Your task to perform on an android device: change keyboard looks Image 0: 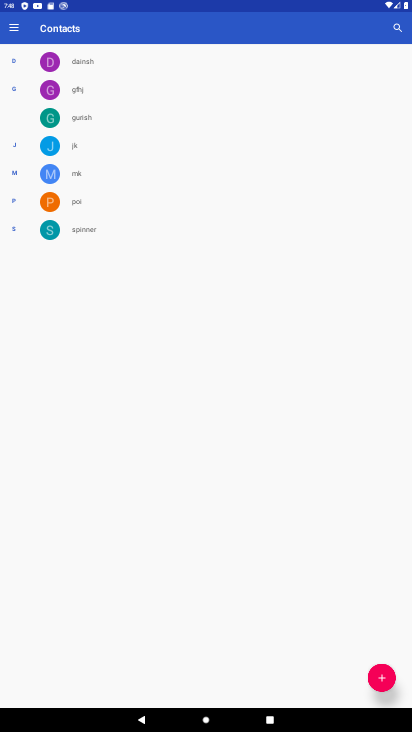
Step 0: press home button
Your task to perform on an android device: change keyboard looks Image 1: 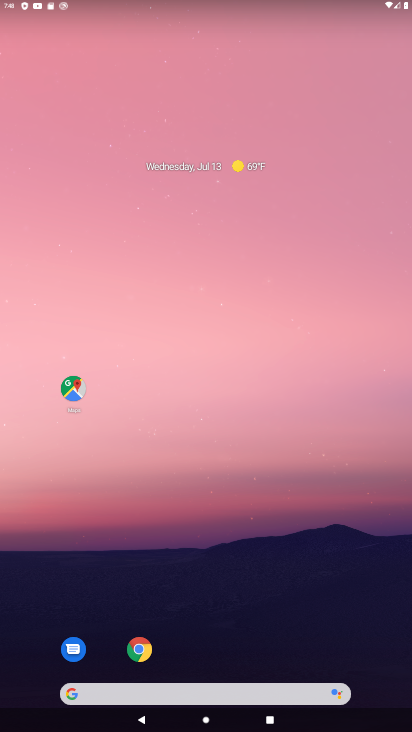
Step 1: drag from (204, 694) to (277, 190)
Your task to perform on an android device: change keyboard looks Image 2: 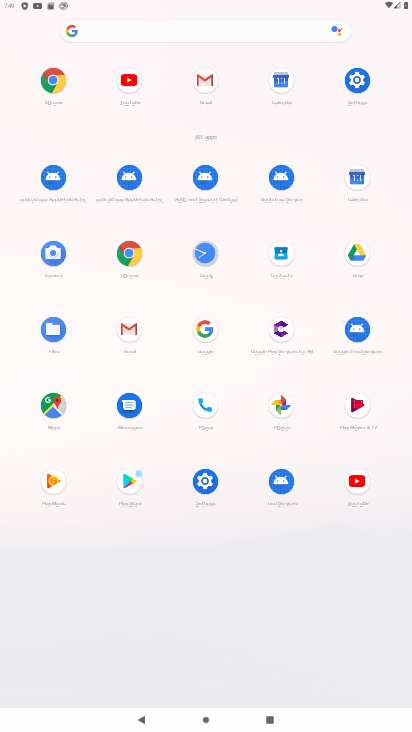
Step 2: click (358, 81)
Your task to perform on an android device: change keyboard looks Image 3: 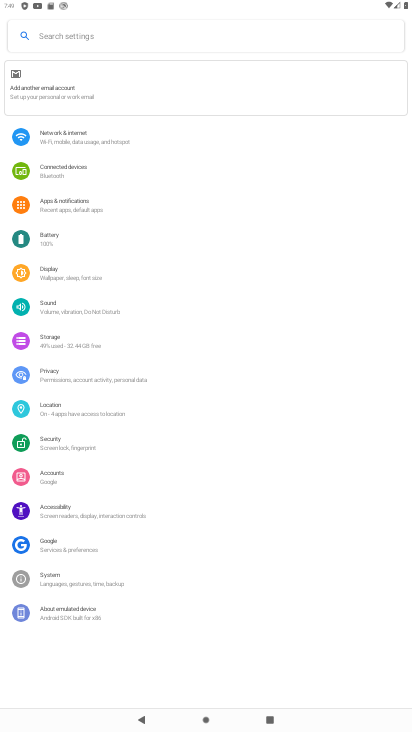
Step 3: click (68, 577)
Your task to perform on an android device: change keyboard looks Image 4: 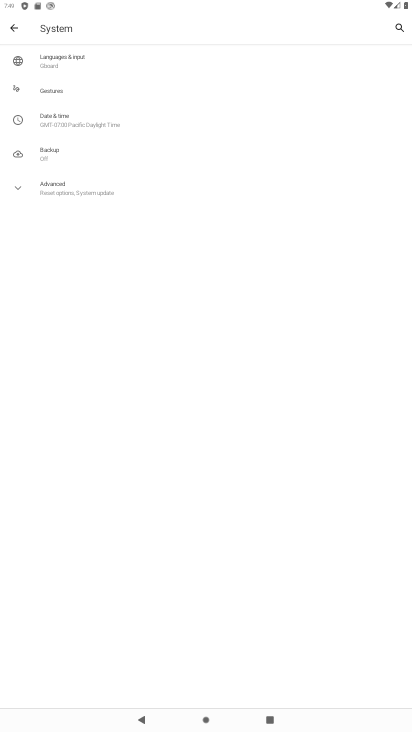
Step 4: click (65, 63)
Your task to perform on an android device: change keyboard looks Image 5: 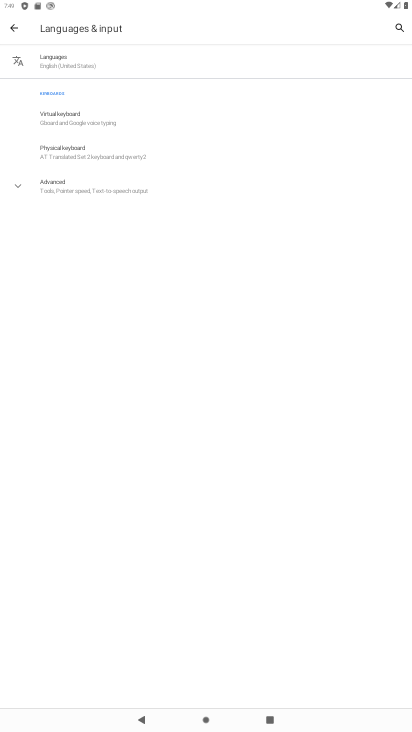
Step 5: click (72, 117)
Your task to perform on an android device: change keyboard looks Image 6: 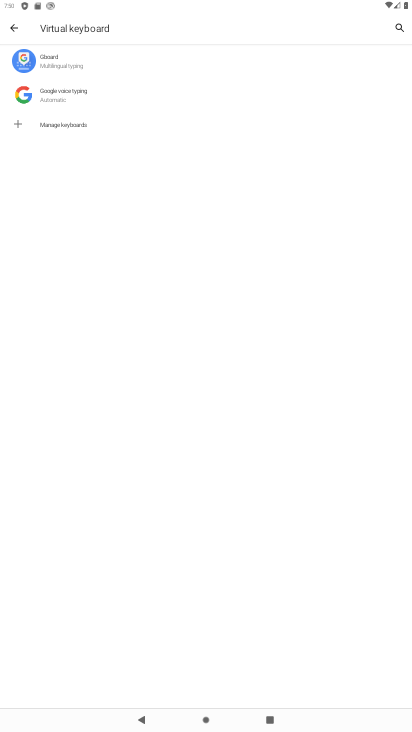
Step 6: click (64, 68)
Your task to perform on an android device: change keyboard looks Image 7: 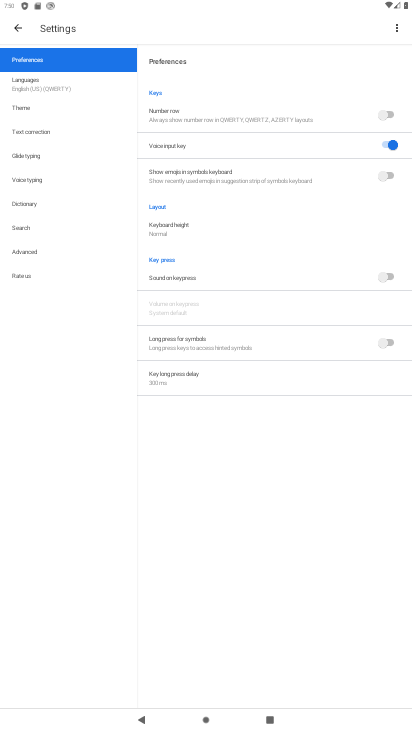
Step 7: click (26, 112)
Your task to perform on an android device: change keyboard looks Image 8: 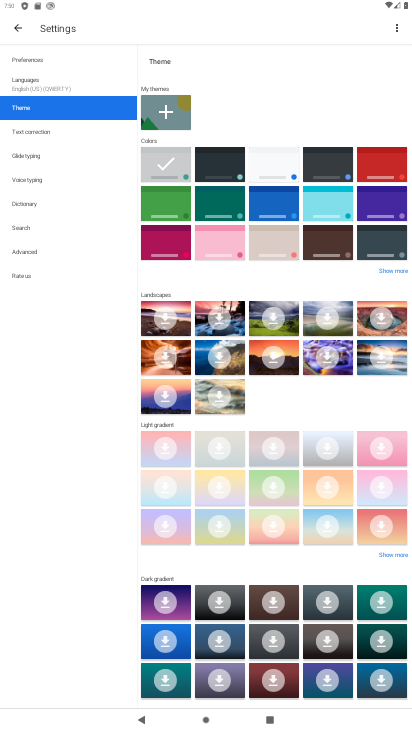
Step 8: click (175, 250)
Your task to perform on an android device: change keyboard looks Image 9: 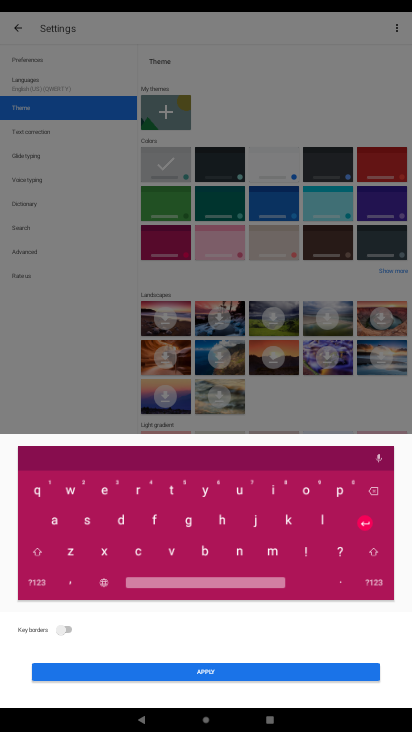
Step 9: click (66, 627)
Your task to perform on an android device: change keyboard looks Image 10: 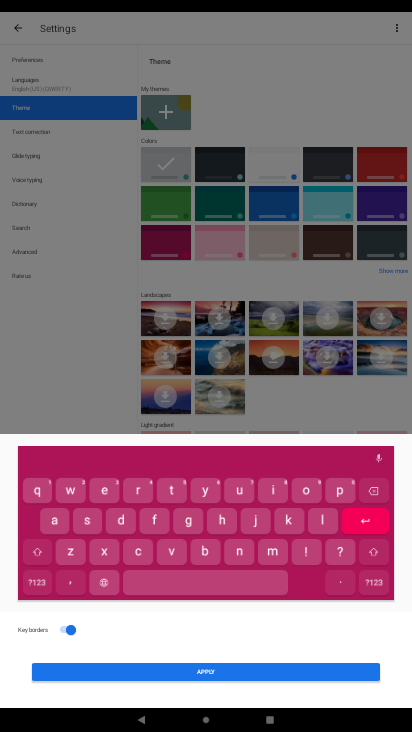
Step 10: click (228, 672)
Your task to perform on an android device: change keyboard looks Image 11: 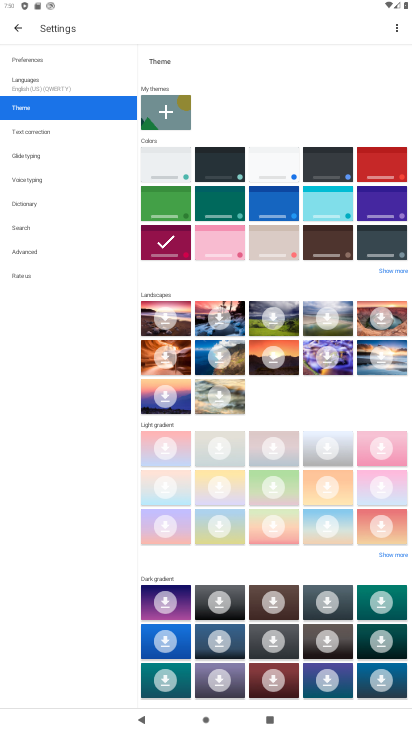
Step 11: task complete